Your task to perform on an android device: check battery use Image 0: 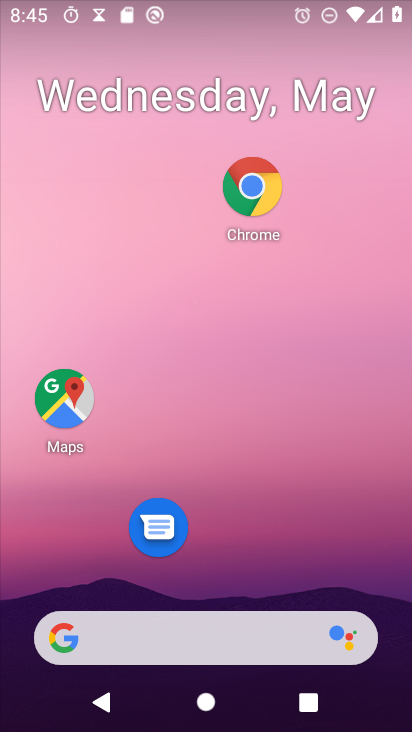
Step 0: drag from (270, 581) to (314, 50)
Your task to perform on an android device: check battery use Image 1: 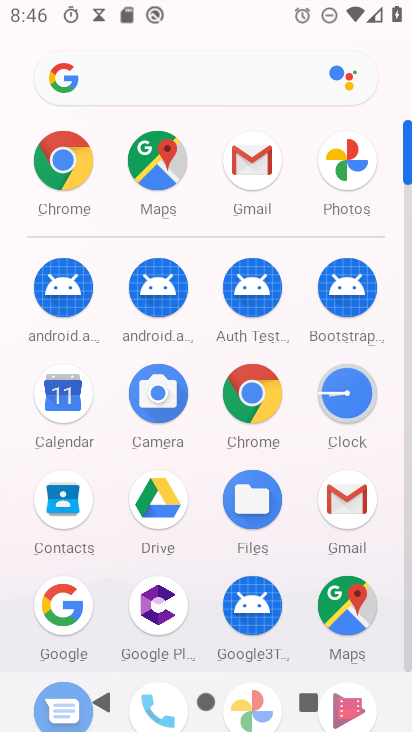
Step 1: drag from (205, 452) to (277, 173)
Your task to perform on an android device: check battery use Image 2: 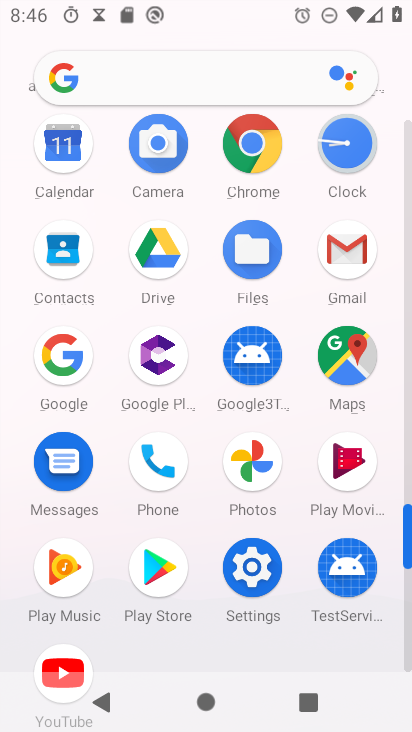
Step 2: click (261, 553)
Your task to perform on an android device: check battery use Image 3: 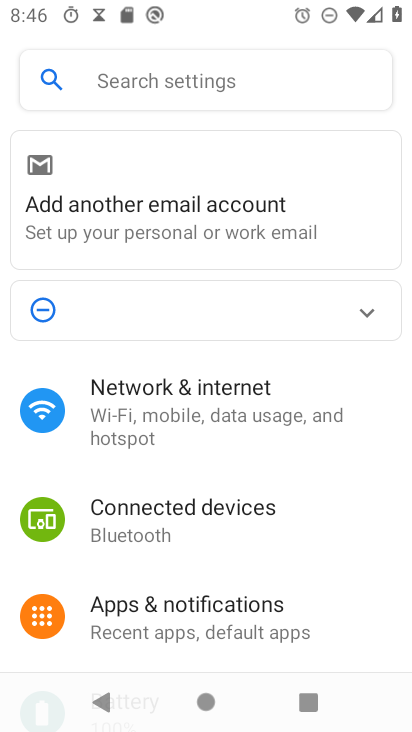
Step 3: drag from (314, 569) to (347, 228)
Your task to perform on an android device: check battery use Image 4: 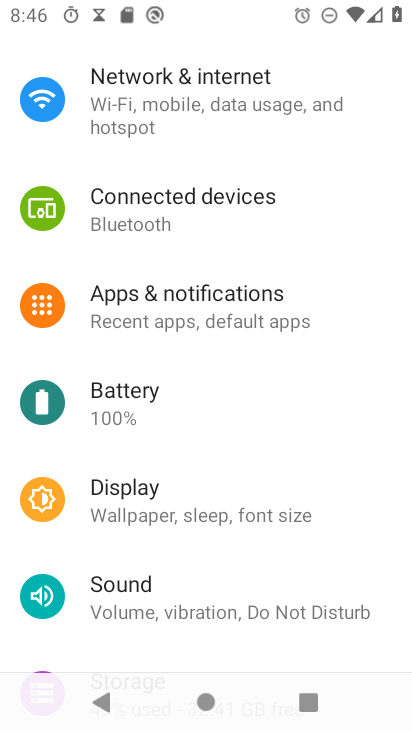
Step 4: click (108, 404)
Your task to perform on an android device: check battery use Image 5: 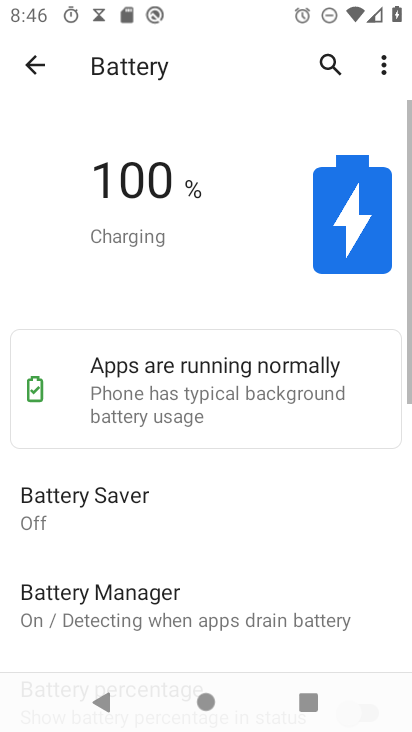
Step 5: task complete